Your task to perform on an android device: What's on my calendar today? Image 0: 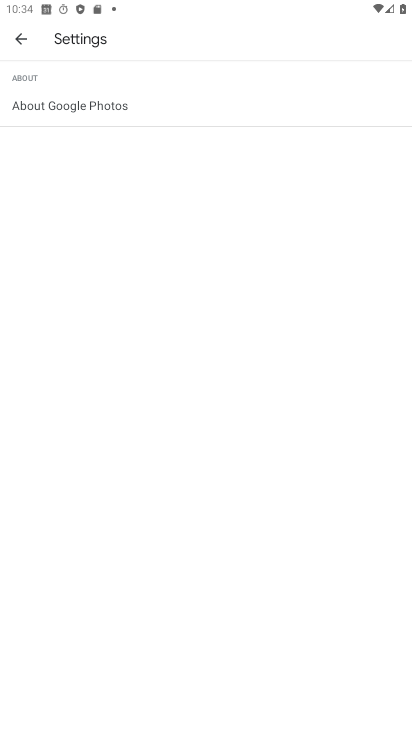
Step 0: press home button
Your task to perform on an android device: What's on my calendar today? Image 1: 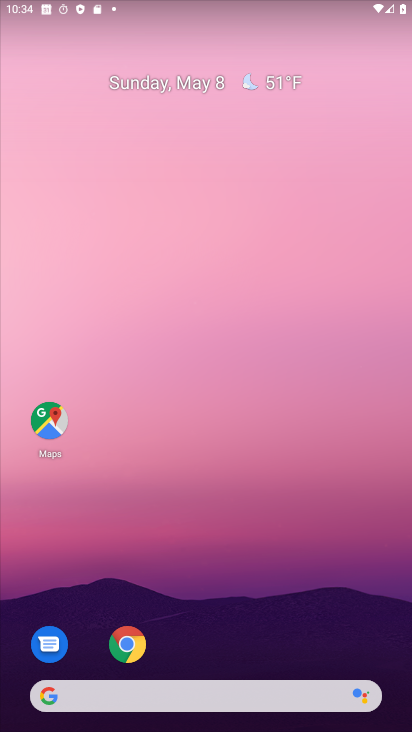
Step 1: drag from (180, 621) to (247, 172)
Your task to perform on an android device: What's on my calendar today? Image 2: 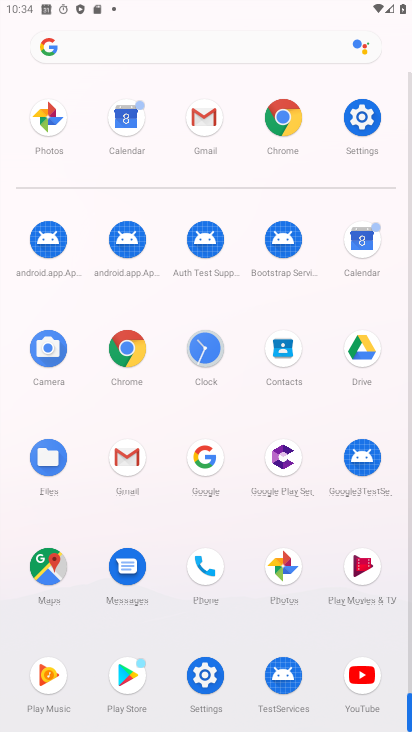
Step 2: click (364, 233)
Your task to perform on an android device: What's on my calendar today? Image 3: 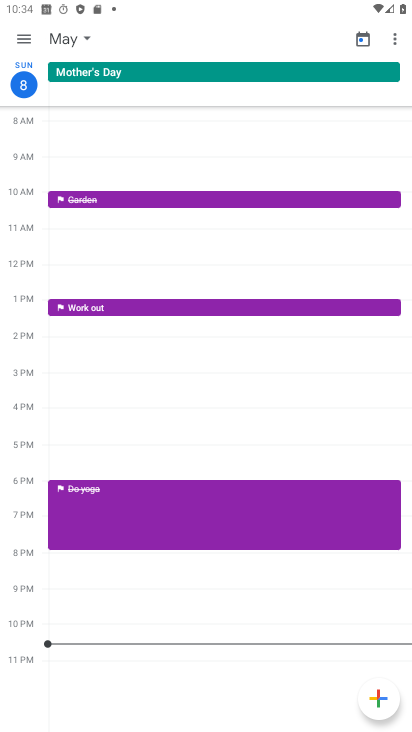
Step 3: click (63, 34)
Your task to perform on an android device: What's on my calendar today? Image 4: 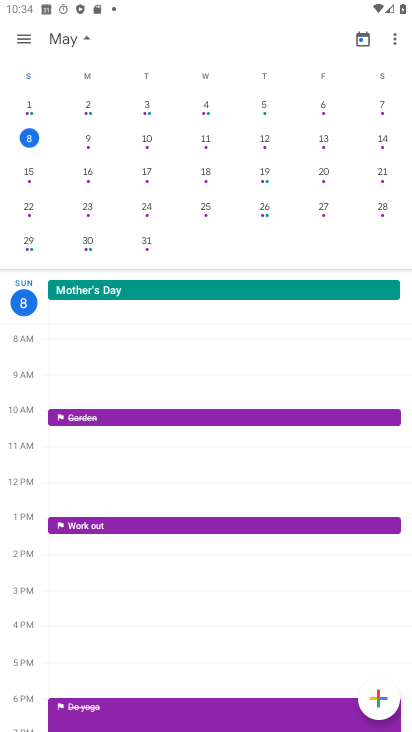
Step 4: click (25, 141)
Your task to perform on an android device: What's on my calendar today? Image 5: 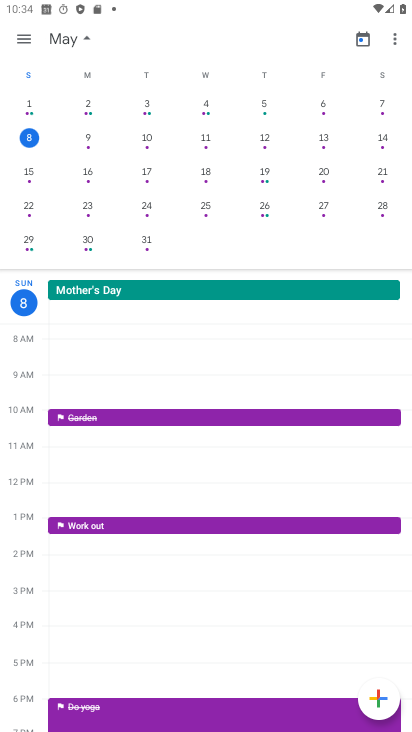
Step 5: task complete